Your task to perform on an android device: Find coffee shops on Maps Image 0: 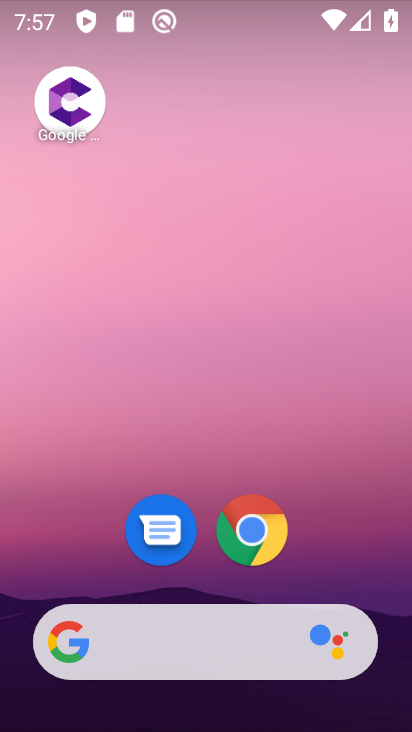
Step 0: drag from (76, 386) to (379, 628)
Your task to perform on an android device: Find coffee shops on Maps Image 1: 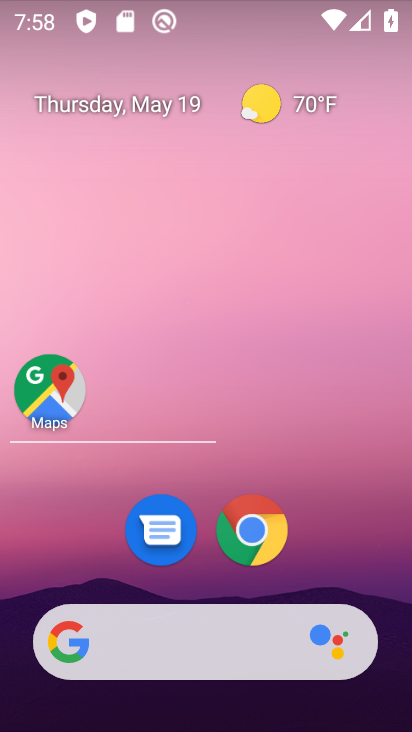
Step 1: drag from (44, 417) to (409, 440)
Your task to perform on an android device: Find coffee shops on Maps Image 2: 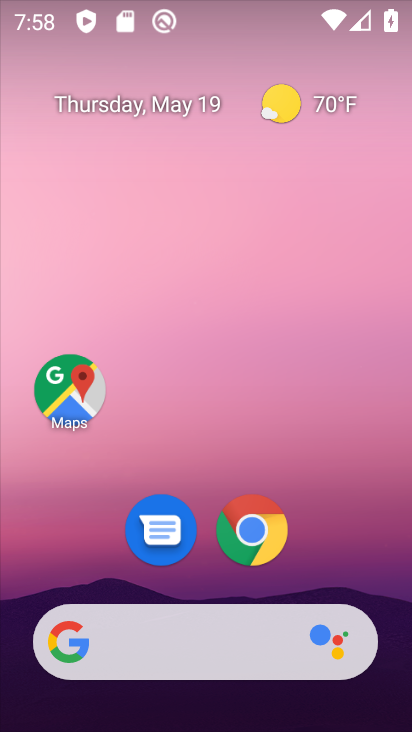
Step 2: drag from (384, 424) to (286, 414)
Your task to perform on an android device: Find coffee shops on Maps Image 3: 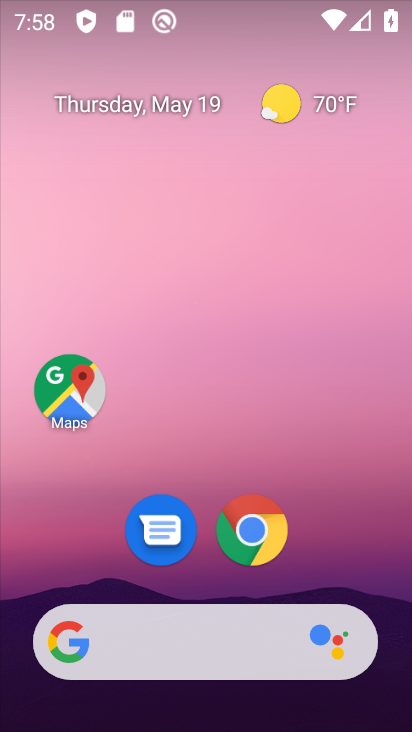
Step 3: click (94, 390)
Your task to perform on an android device: Find coffee shops on Maps Image 4: 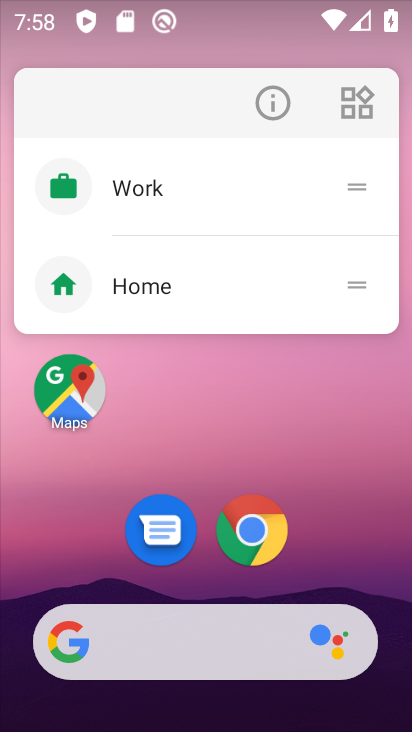
Step 4: click (94, 390)
Your task to perform on an android device: Find coffee shops on Maps Image 5: 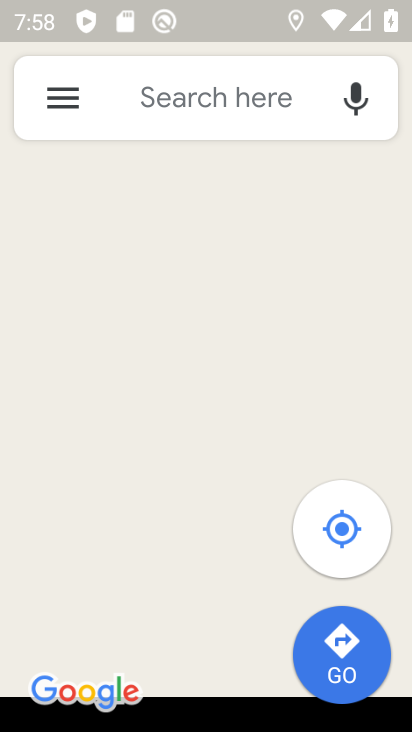
Step 5: click (206, 92)
Your task to perform on an android device: Find coffee shops on Maps Image 6: 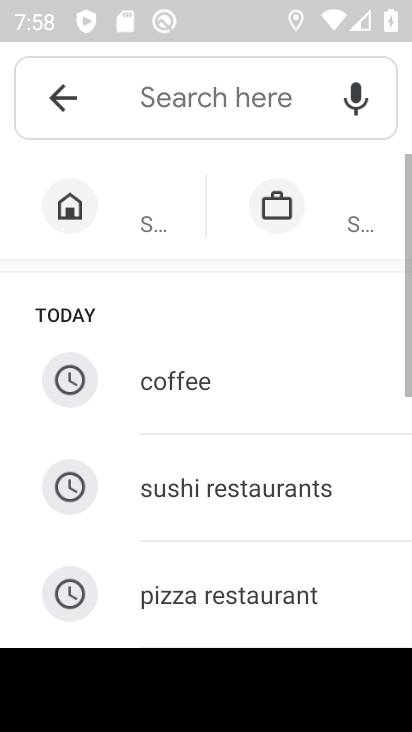
Step 6: drag from (248, 396) to (275, 221)
Your task to perform on an android device: Find coffee shops on Maps Image 7: 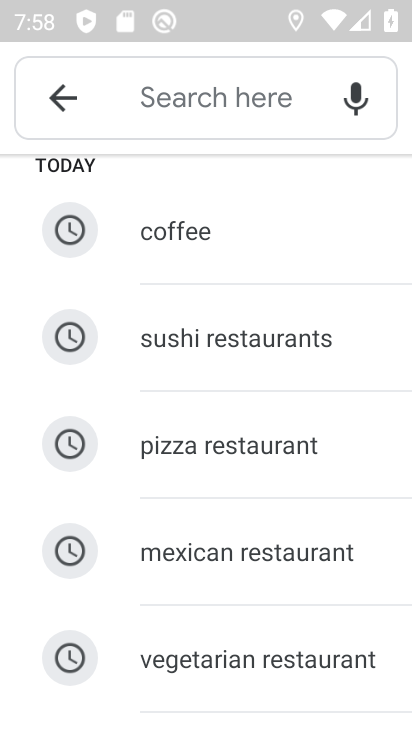
Step 7: drag from (307, 536) to (329, 233)
Your task to perform on an android device: Find coffee shops on Maps Image 8: 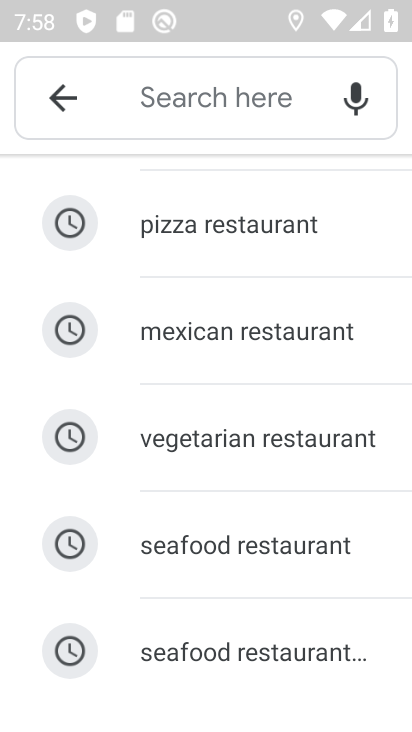
Step 8: drag from (271, 576) to (263, 267)
Your task to perform on an android device: Find coffee shops on Maps Image 9: 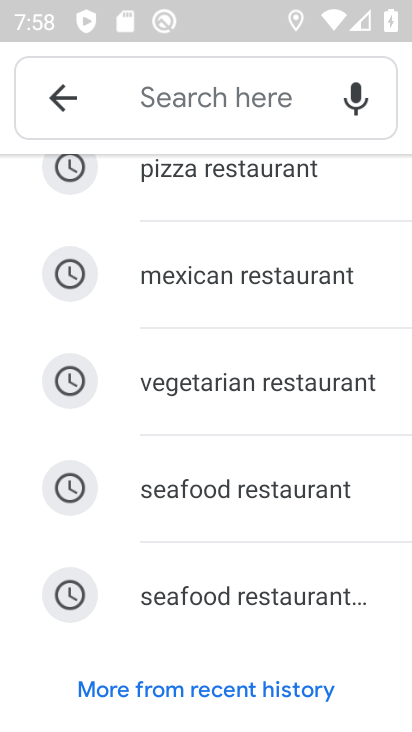
Step 9: click (191, 118)
Your task to perform on an android device: Find coffee shops on Maps Image 10: 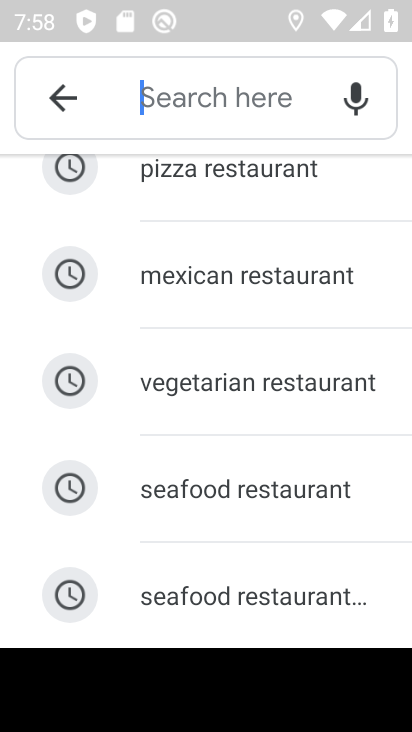
Step 10: type "coffee shops"
Your task to perform on an android device: Find coffee shops on Maps Image 11: 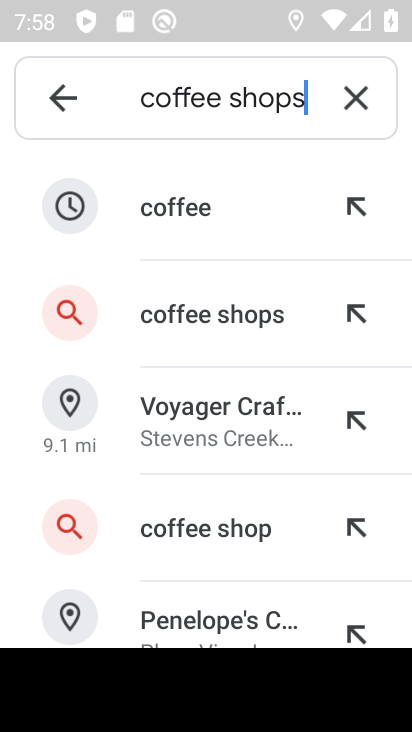
Step 11: task complete